Your task to perform on an android device: check storage Image 0: 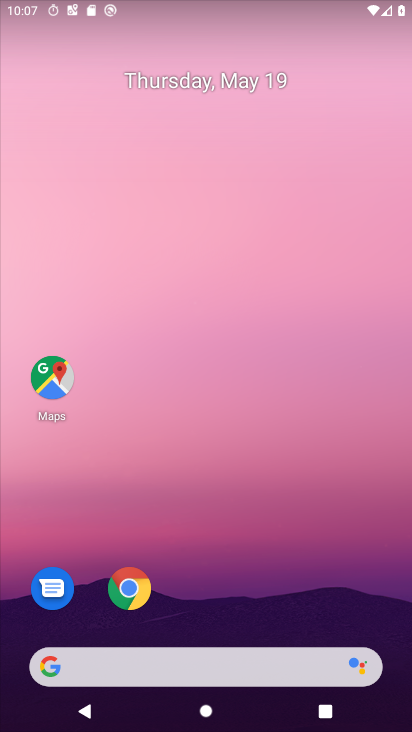
Step 0: press home button
Your task to perform on an android device: check storage Image 1: 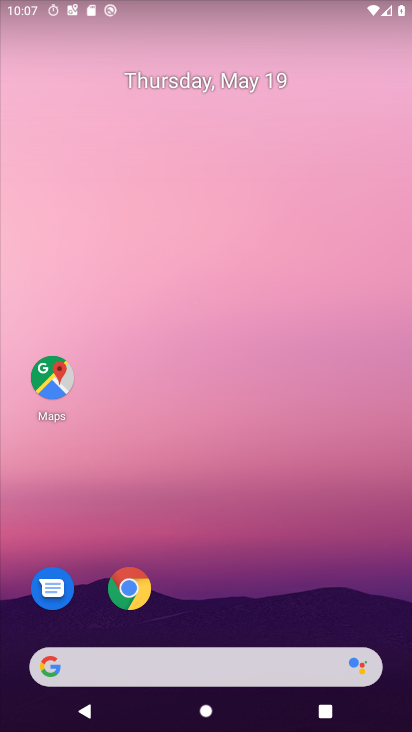
Step 1: drag from (192, 661) to (310, 96)
Your task to perform on an android device: check storage Image 2: 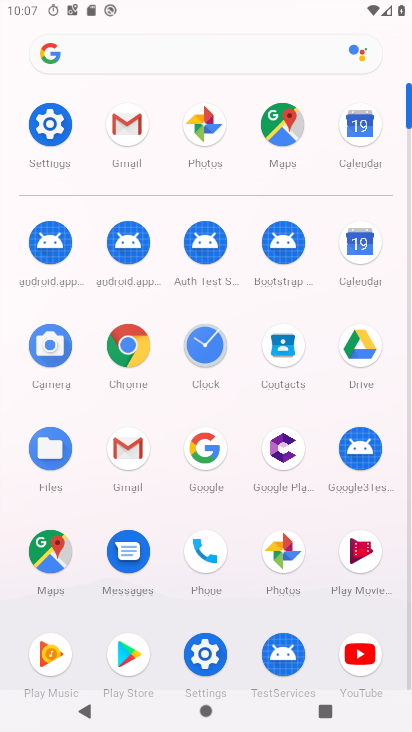
Step 2: click (46, 131)
Your task to perform on an android device: check storage Image 3: 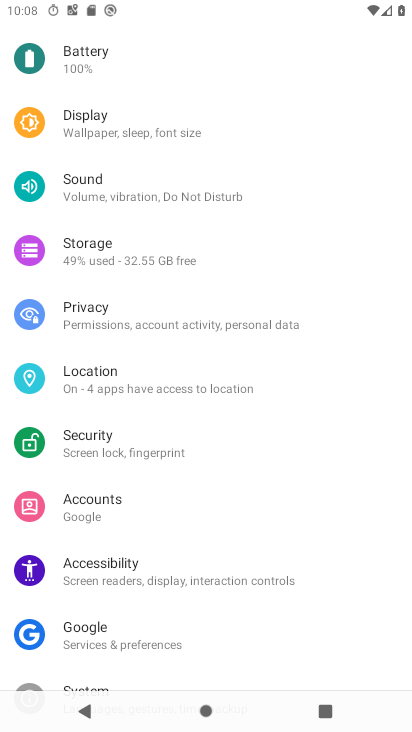
Step 3: click (97, 248)
Your task to perform on an android device: check storage Image 4: 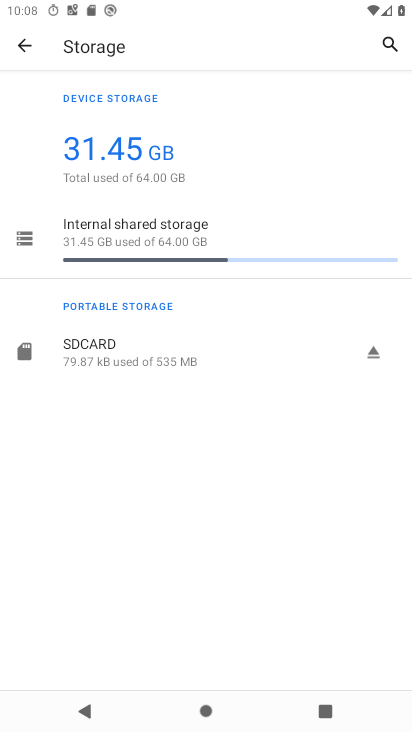
Step 4: task complete